Your task to perform on an android device: change the clock display to show seconds Image 0: 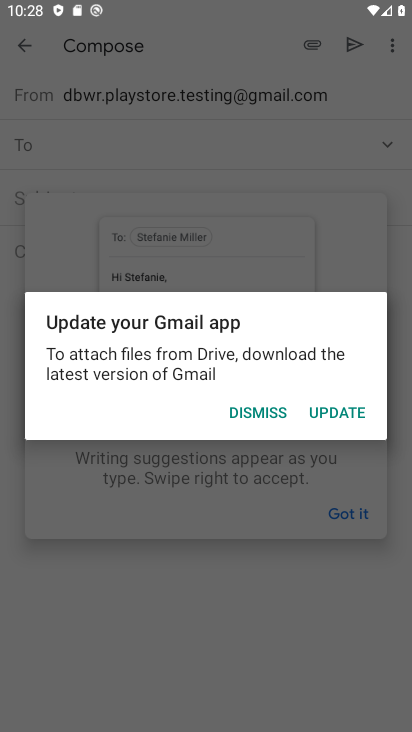
Step 0: click (246, 414)
Your task to perform on an android device: change the clock display to show seconds Image 1: 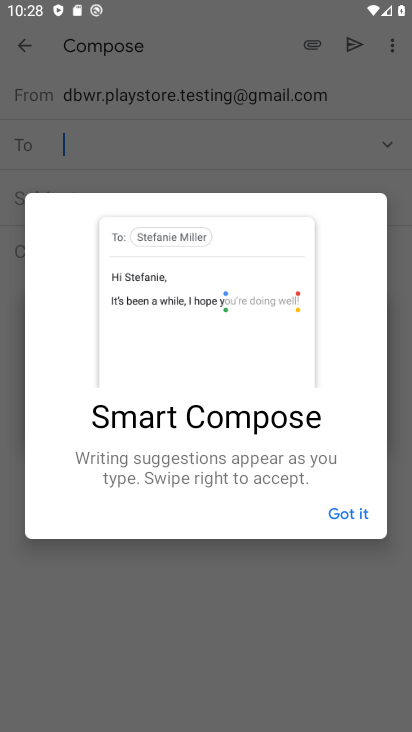
Step 1: click (357, 510)
Your task to perform on an android device: change the clock display to show seconds Image 2: 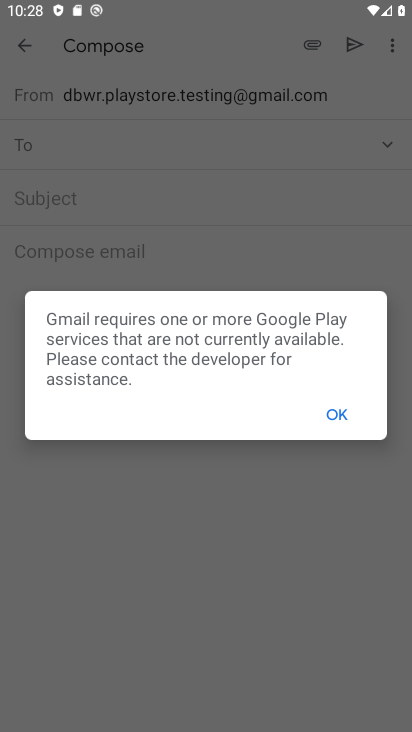
Step 2: click (332, 396)
Your task to perform on an android device: change the clock display to show seconds Image 3: 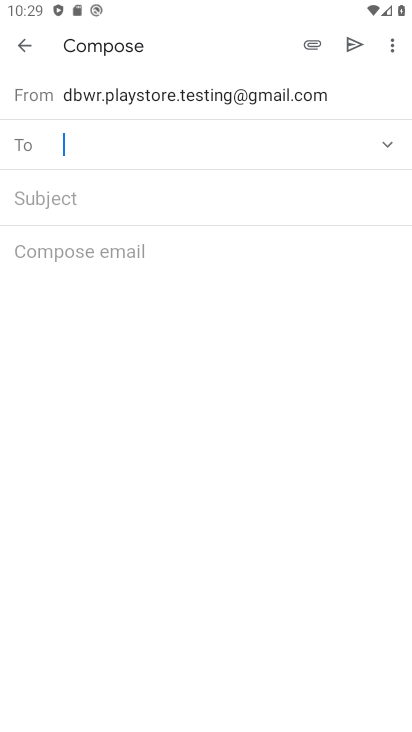
Step 3: press back button
Your task to perform on an android device: change the clock display to show seconds Image 4: 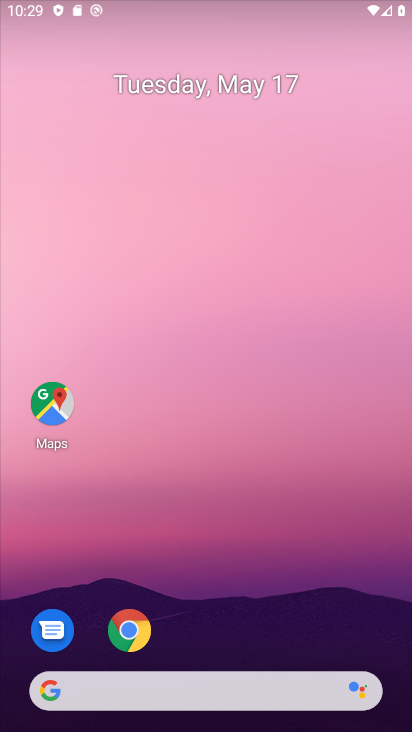
Step 4: drag from (329, 557) to (300, 4)
Your task to perform on an android device: change the clock display to show seconds Image 5: 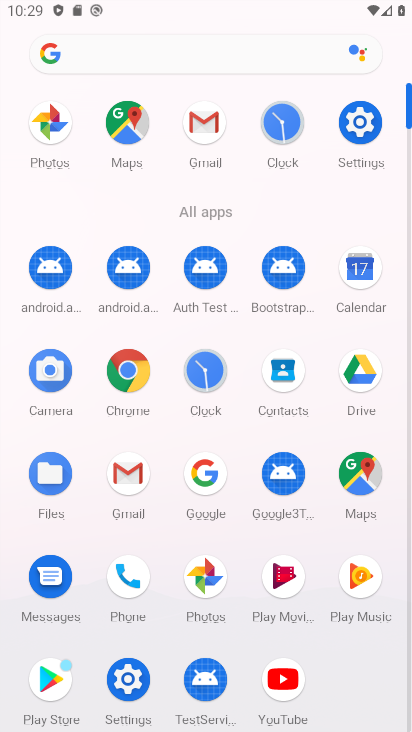
Step 5: click (208, 375)
Your task to perform on an android device: change the clock display to show seconds Image 6: 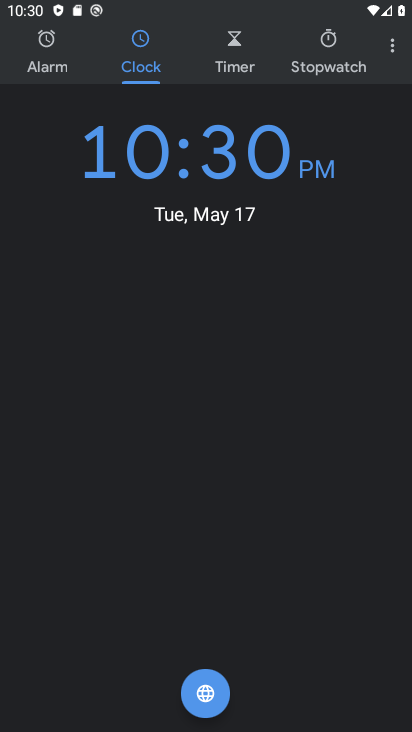
Step 6: click (390, 47)
Your task to perform on an android device: change the clock display to show seconds Image 7: 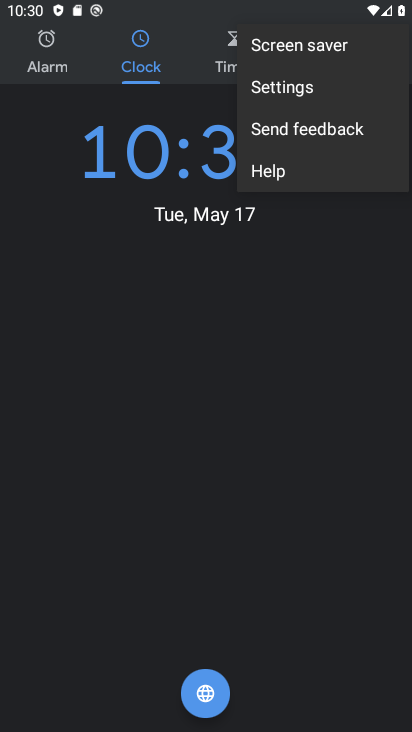
Step 7: click (287, 98)
Your task to perform on an android device: change the clock display to show seconds Image 8: 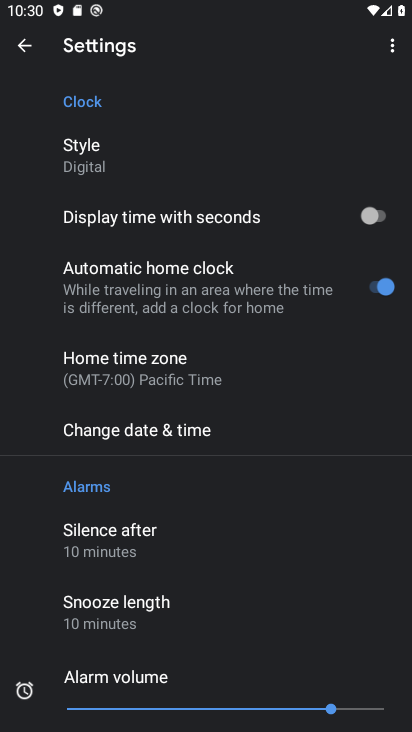
Step 8: click (370, 217)
Your task to perform on an android device: change the clock display to show seconds Image 9: 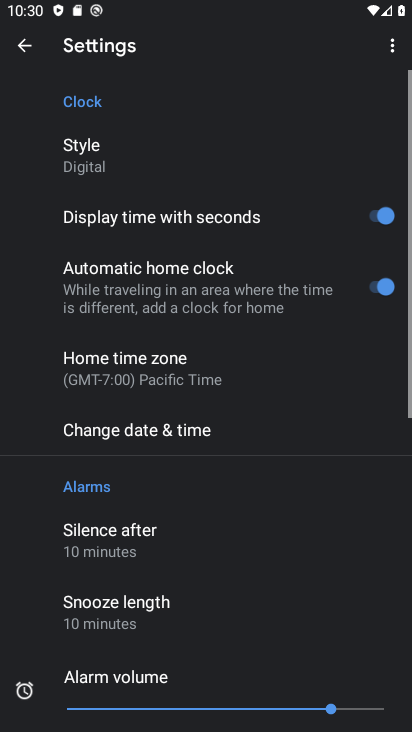
Step 9: task complete